Your task to perform on an android device: set default search engine in the chrome app Image 0: 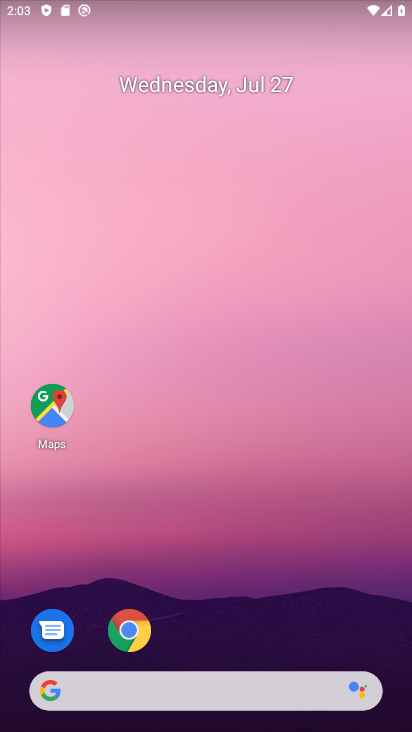
Step 0: drag from (134, 139) to (190, 71)
Your task to perform on an android device: set default search engine in the chrome app Image 1: 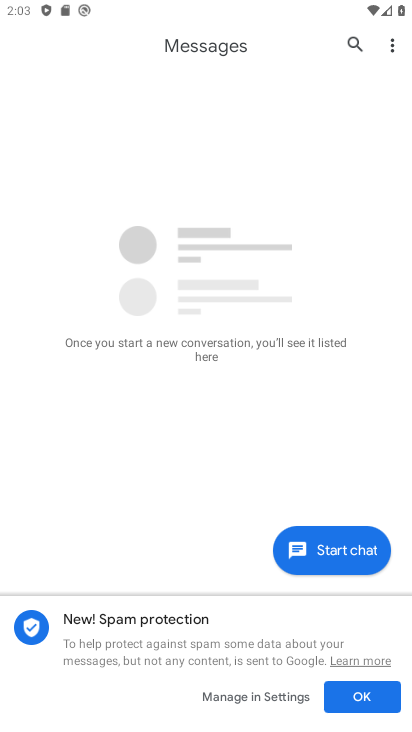
Step 1: drag from (266, 508) to (206, 82)
Your task to perform on an android device: set default search engine in the chrome app Image 2: 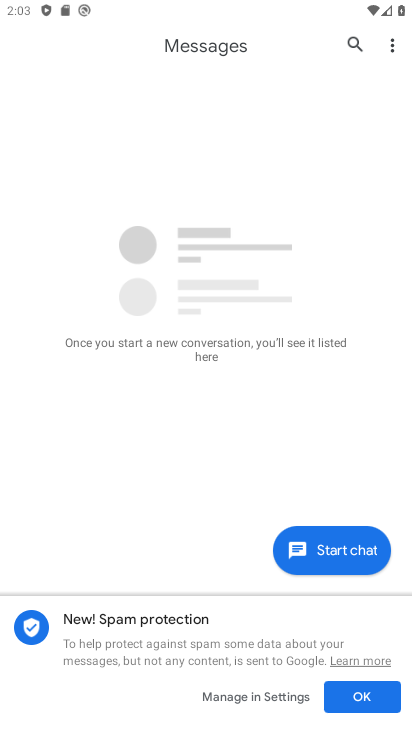
Step 2: drag from (245, 495) to (207, 189)
Your task to perform on an android device: set default search engine in the chrome app Image 3: 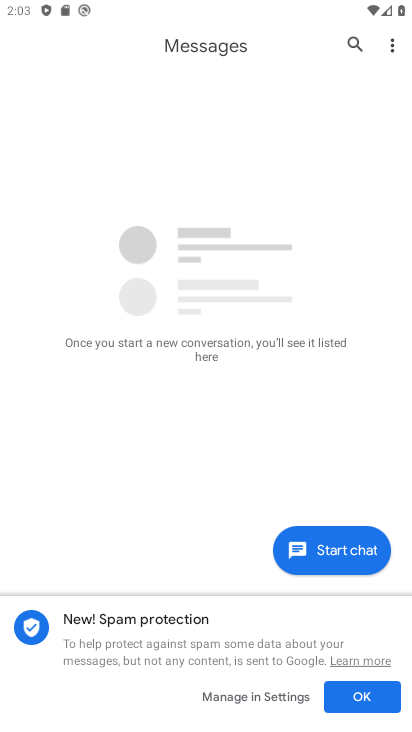
Step 3: click (364, 710)
Your task to perform on an android device: set default search engine in the chrome app Image 4: 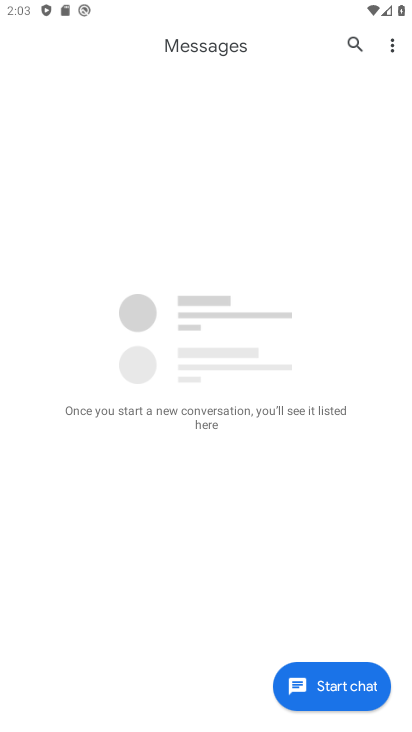
Step 4: press back button
Your task to perform on an android device: set default search engine in the chrome app Image 5: 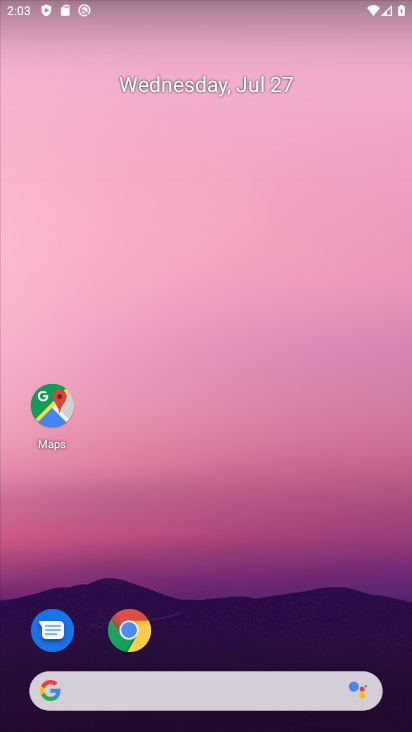
Step 5: drag from (243, 279) to (229, 178)
Your task to perform on an android device: set default search engine in the chrome app Image 6: 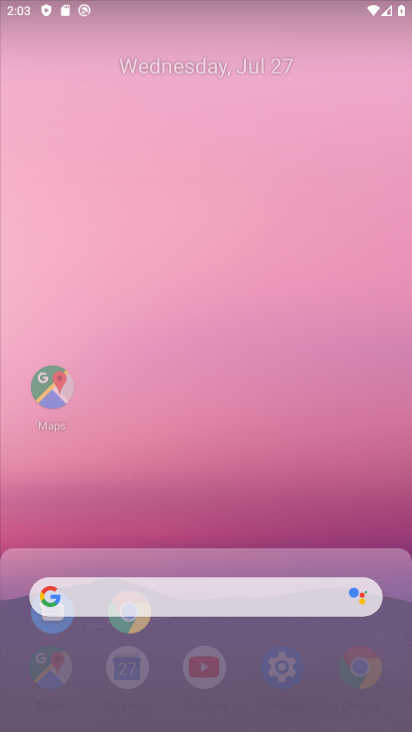
Step 6: drag from (256, 535) to (251, 201)
Your task to perform on an android device: set default search engine in the chrome app Image 7: 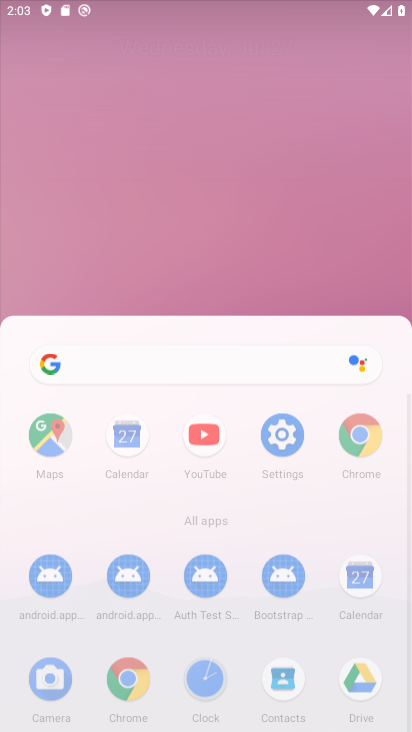
Step 7: drag from (228, 504) to (168, 114)
Your task to perform on an android device: set default search engine in the chrome app Image 8: 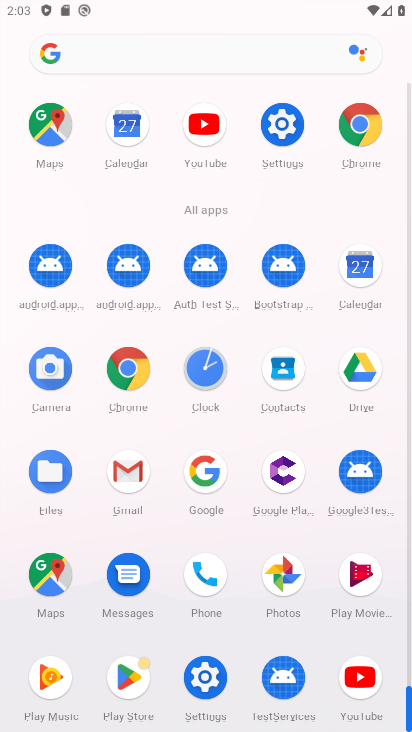
Step 8: drag from (179, 556) to (129, 148)
Your task to perform on an android device: set default search engine in the chrome app Image 9: 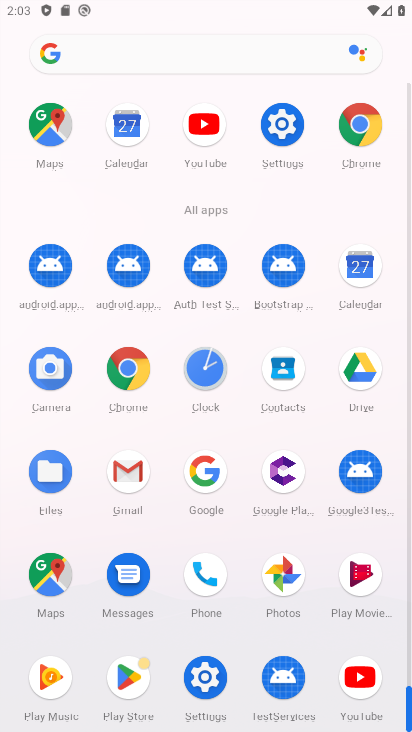
Step 9: click (363, 124)
Your task to perform on an android device: set default search engine in the chrome app Image 10: 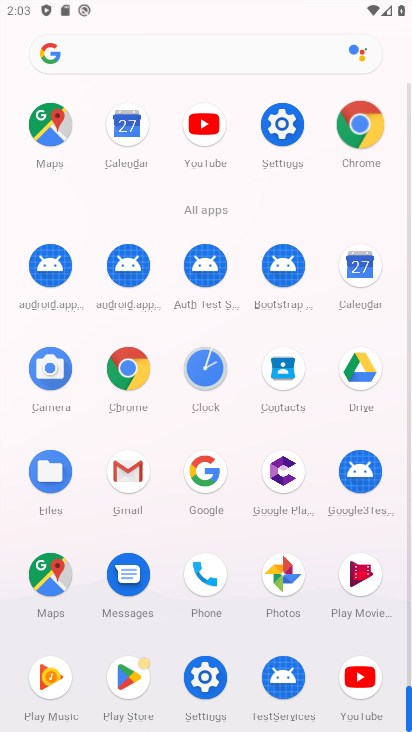
Step 10: click (354, 126)
Your task to perform on an android device: set default search engine in the chrome app Image 11: 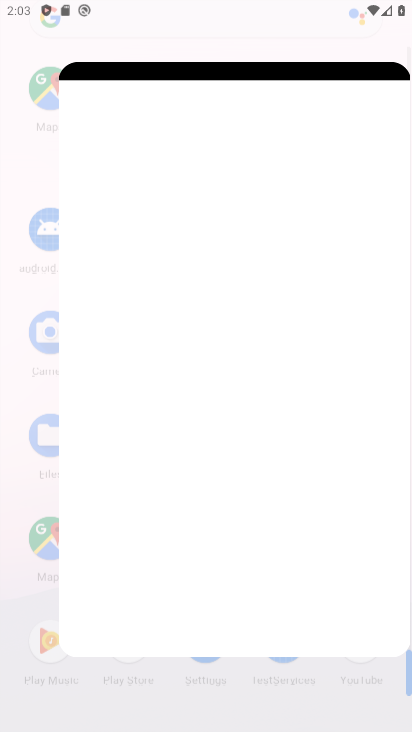
Step 11: click (356, 128)
Your task to perform on an android device: set default search engine in the chrome app Image 12: 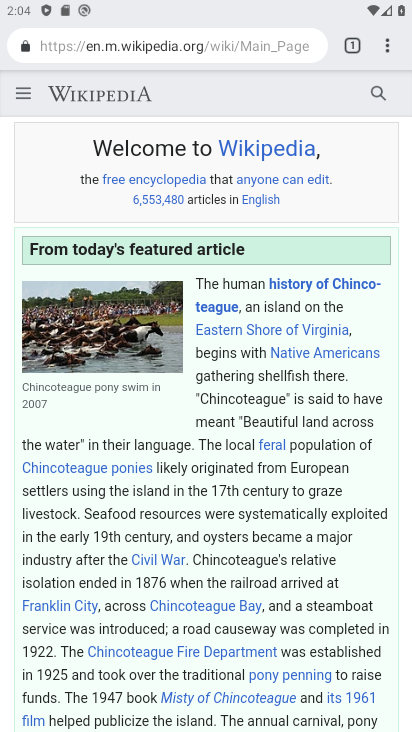
Step 12: drag from (383, 47) to (216, 509)
Your task to perform on an android device: set default search engine in the chrome app Image 13: 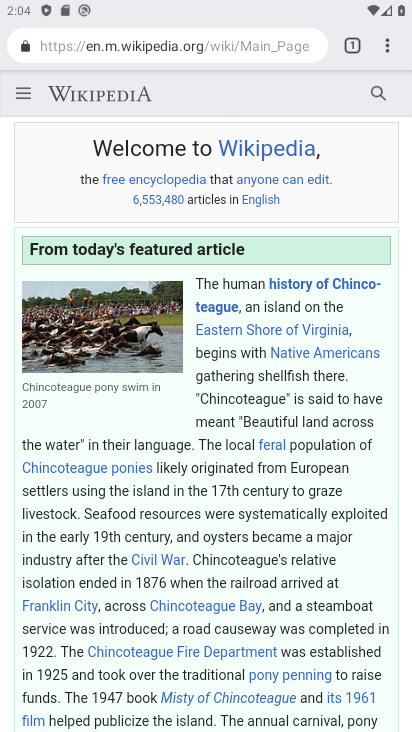
Step 13: click (224, 507)
Your task to perform on an android device: set default search engine in the chrome app Image 14: 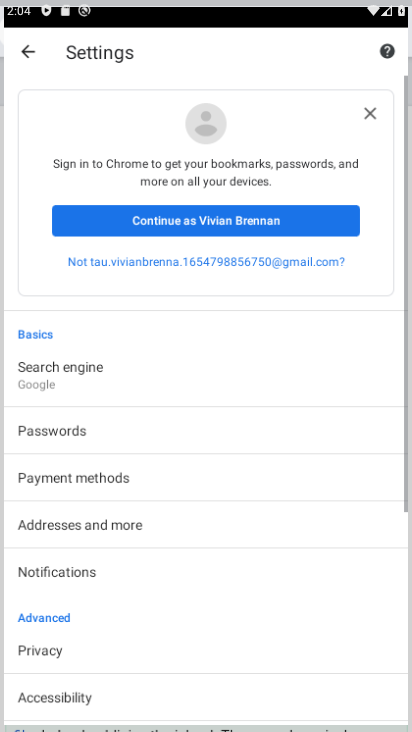
Step 14: click (226, 506)
Your task to perform on an android device: set default search engine in the chrome app Image 15: 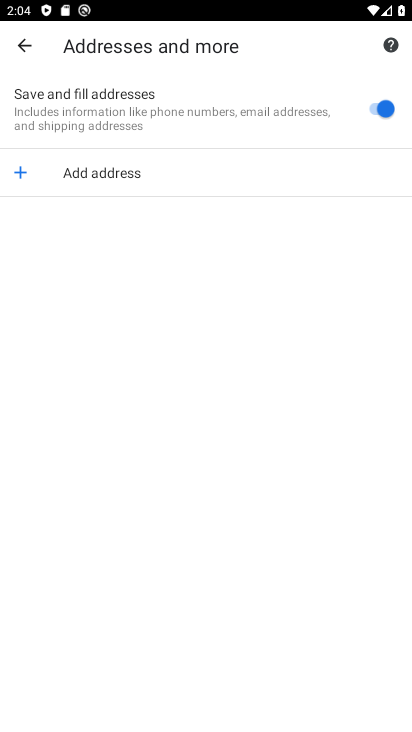
Step 15: click (18, 35)
Your task to perform on an android device: set default search engine in the chrome app Image 16: 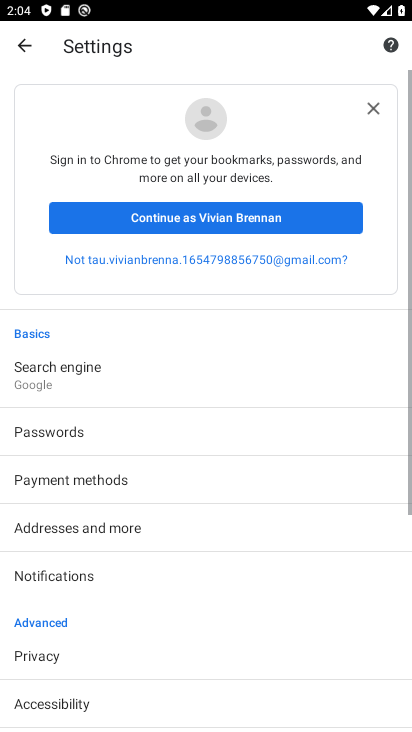
Step 16: click (40, 351)
Your task to perform on an android device: set default search engine in the chrome app Image 17: 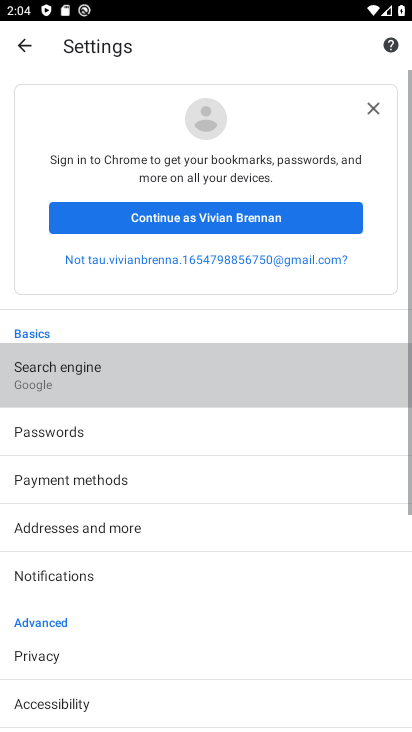
Step 17: click (40, 351)
Your task to perform on an android device: set default search engine in the chrome app Image 18: 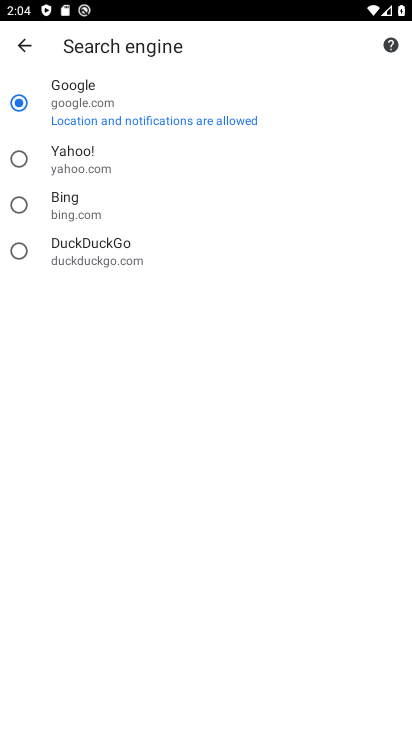
Step 18: click (19, 164)
Your task to perform on an android device: set default search engine in the chrome app Image 19: 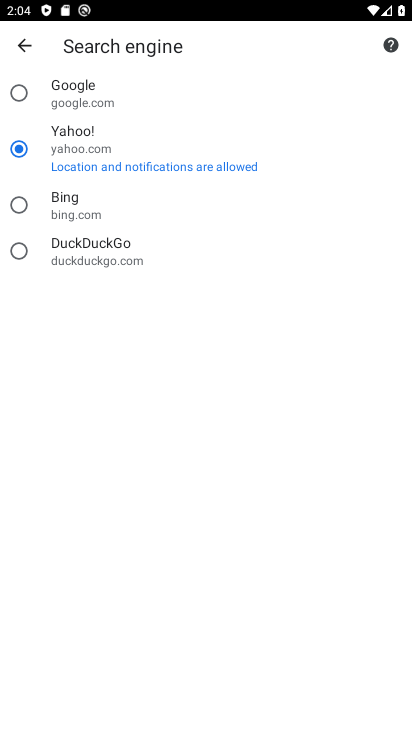
Step 19: task complete